Your task to perform on an android device: remove spam from my inbox in the gmail app Image 0: 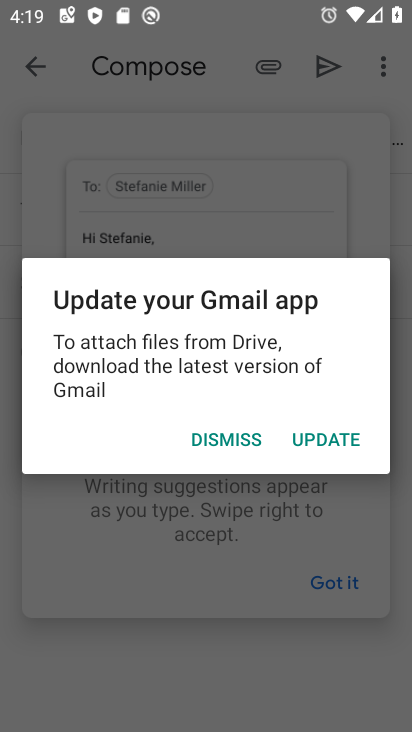
Step 0: press home button
Your task to perform on an android device: remove spam from my inbox in the gmail app Image 1: 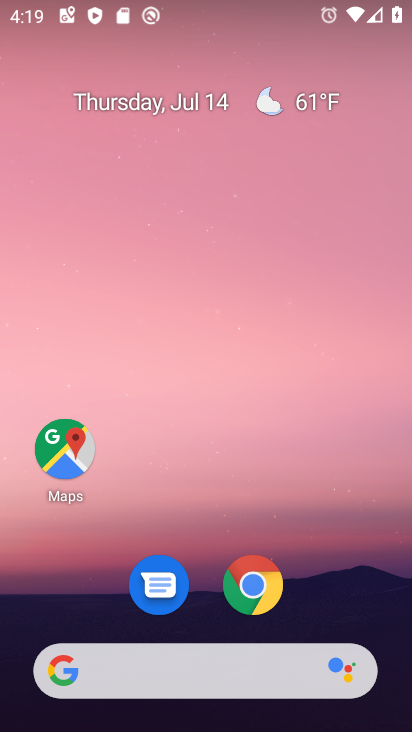
Step 1: drag from (325, 590) to (366, 95)
Your task to perform on an android device: remove spam from my inbox in the gmail app Image 2: 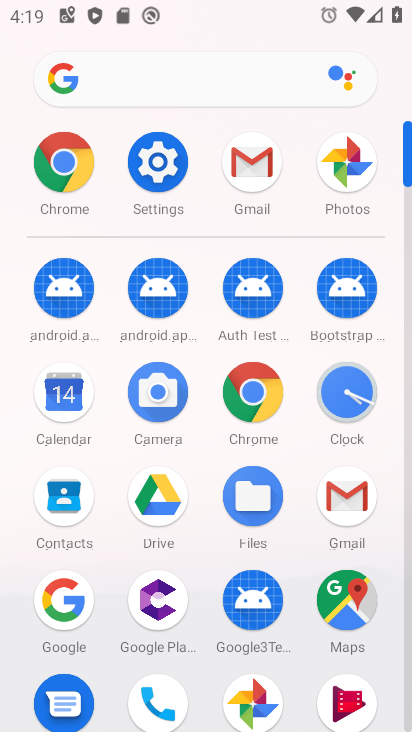
Step 2: click (267, 172)
Your task to perform on an android device: remove spam from my inbox in the gmail app Image 3: 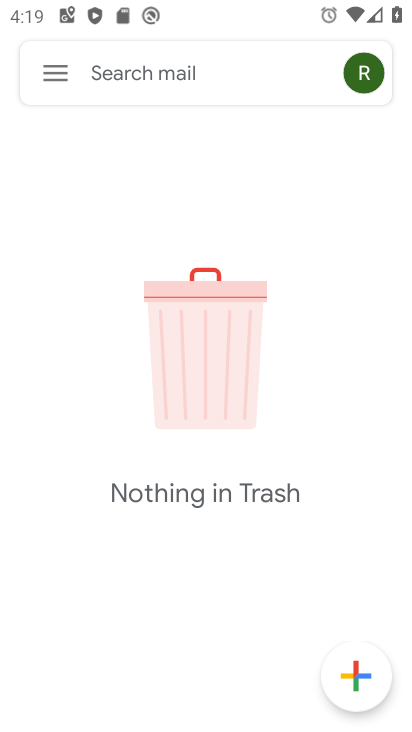
Step 3: click (59, 65)
Your task to perform on an android device: remove spam from my inbox in the gmail app Image 4: 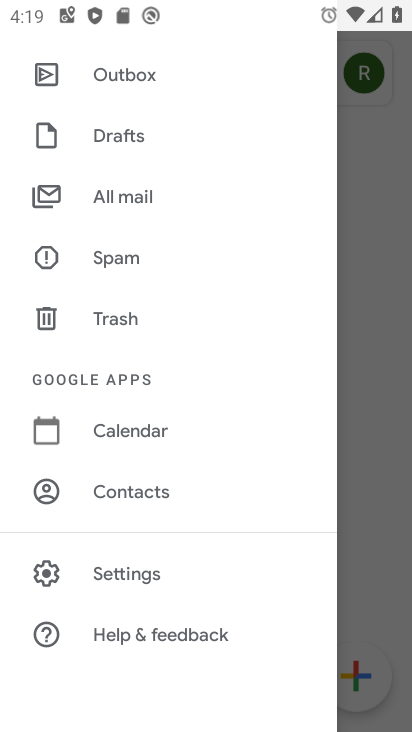
Step 4: click (108, 257)
Your task to perform on an android device: remove spam from my inbox in the gmail app Image 5: 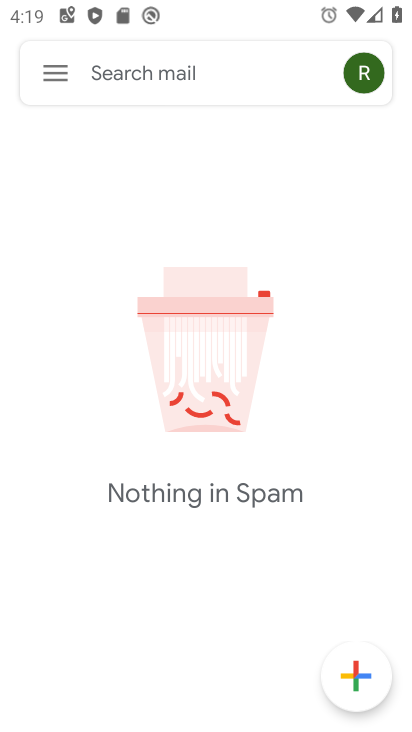
Step 5: task complete